Your task to perform on an android device: allow cookies in the chrome app Image 0: 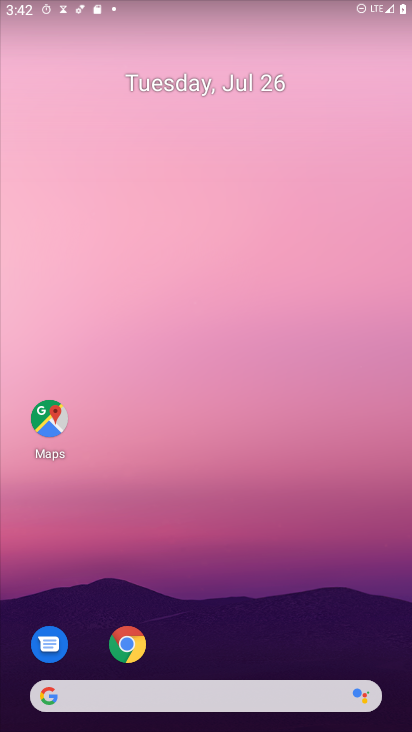
Step 0: press home button
Your task to perform on an android device: allow cookies in the chrome app Image 1: 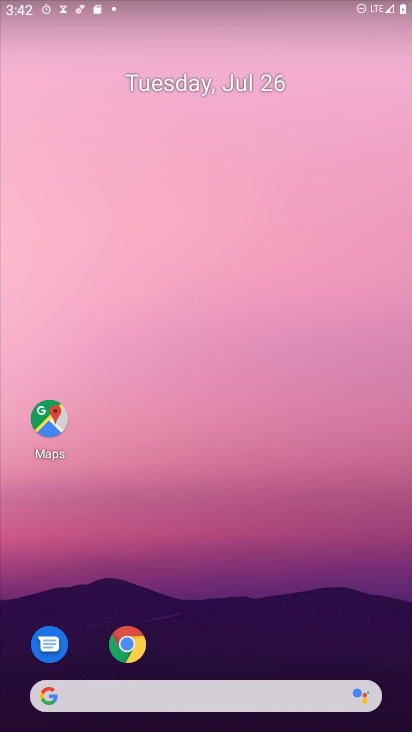
Step 1: drag from (291, 628) to (300, 107)
Your task to perform on an android device: allow cookies in the chrome app Image 2: 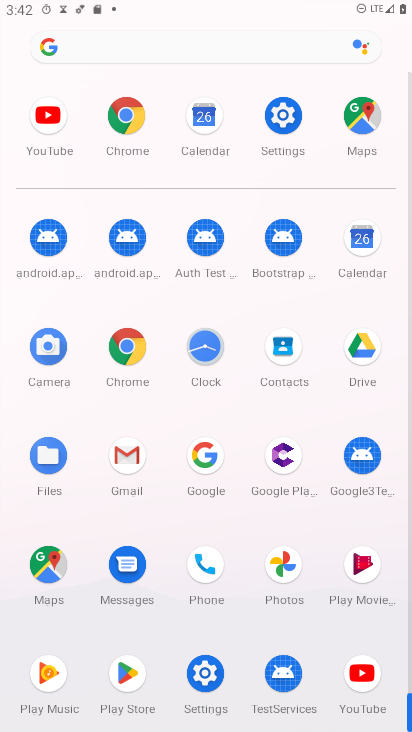
Step 2: click (126, 116)
Your task to perform on an android device: allow cookies in the chrome app Image 3: 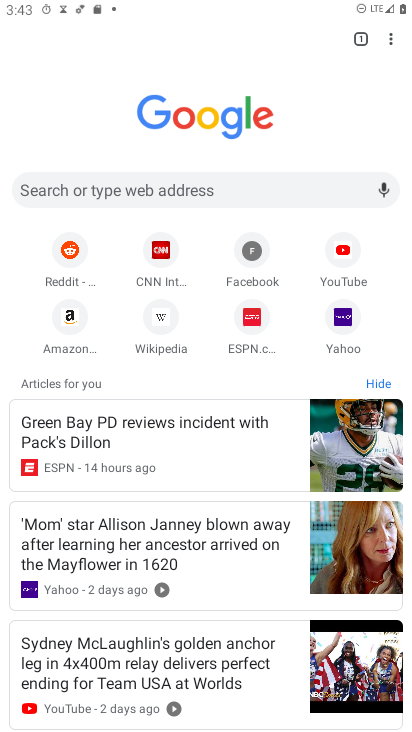
Step 3: drag from (391, 31) to (253, 329)
Your task to perform on an android device: allow cookies in the chrome app Image 4: 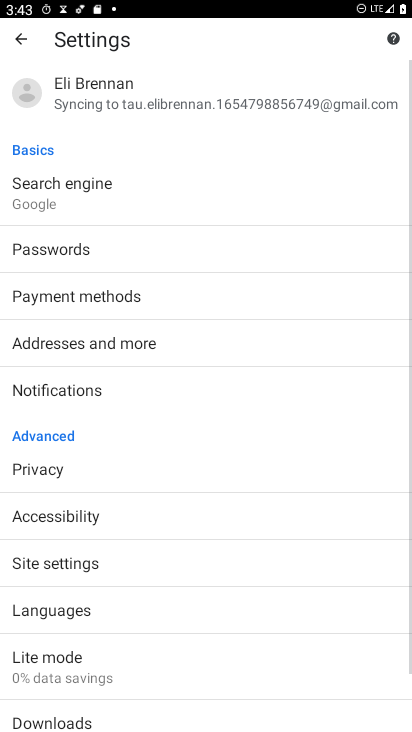
Step 4: click (38, 558)
Your task to perform on an android device: allow cookies in the chrome app Image 5: 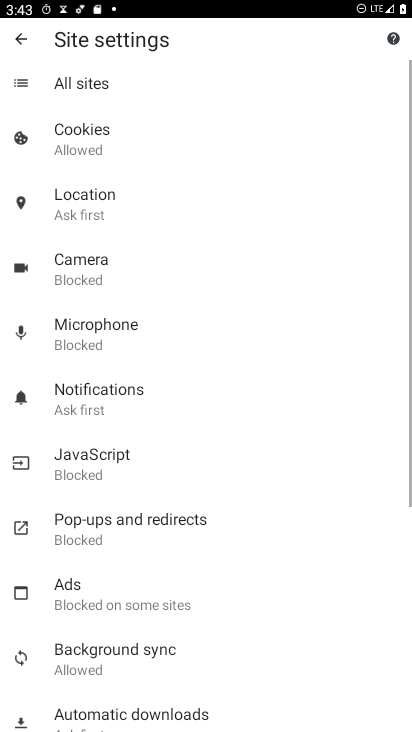
Step 5: click (108, 123)
Your task to perform on an android device: allow cookies in the chrome app Image 6: 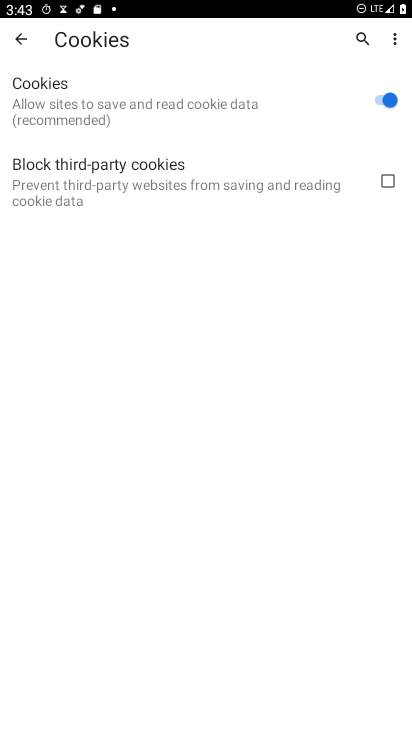
Step 6: task complete